Your task to perform on an android device: Open Google Chrome and click the shortcut for Amazon.com Image 0: 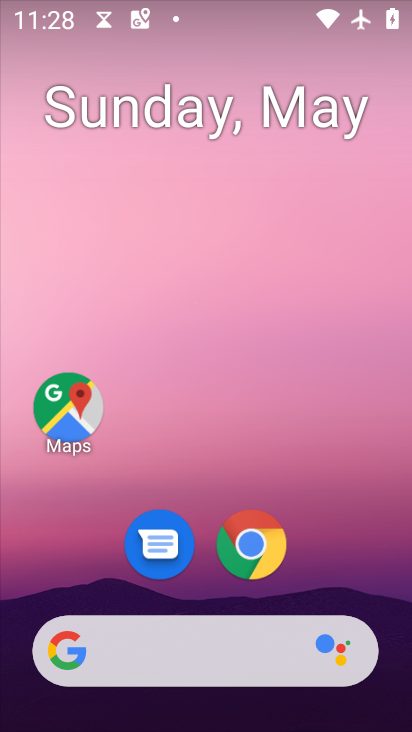
Step 0: click (265, 528)
Your task to perform on an android device: Open Google Chrome and click the shortcut for Amazon.com Image 1: 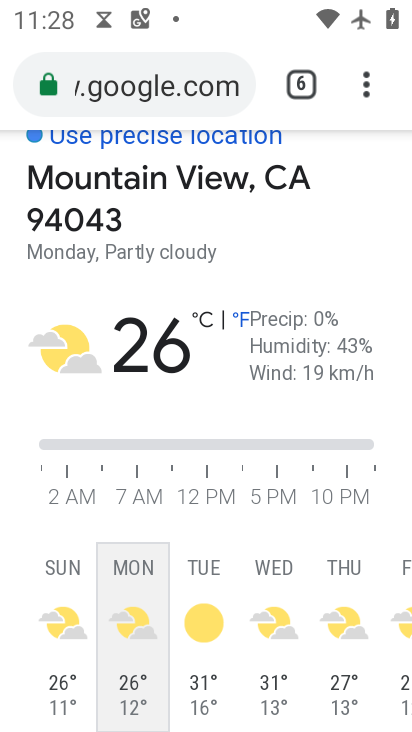
Step 1: click (359, 82)
Your task to perform on an android device: Open Google Chrome and click the shortcut for Amazon.com Image 2: 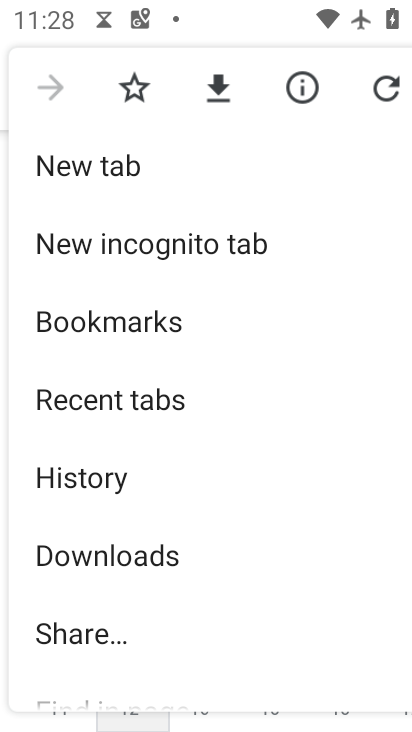
Step 2: click (136, 180)
Your task to perform on an android device: Open Google Chrome and click the shortcut for Amazon.com Image 3: 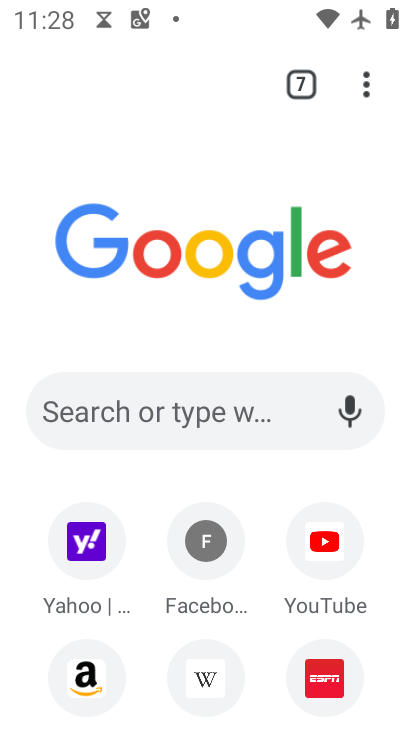
Step 3: click (76, 652)
Your task to perform on an android device: Open Google Chrome and click the shortcut for Amazon.com Image 4: 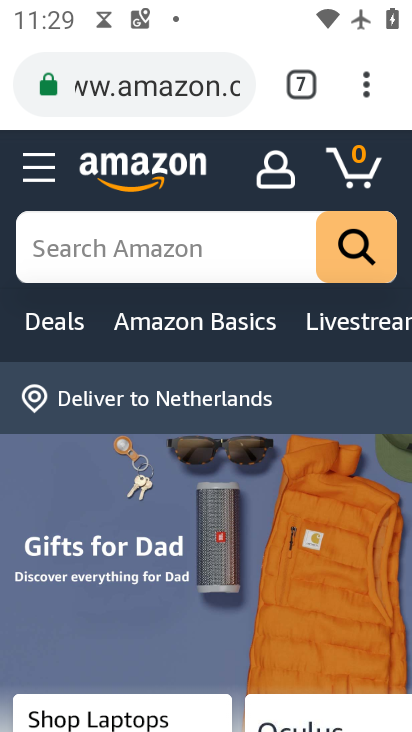
Step 4: task complete